Your task to perform on an android device: turn on data saver in the chrome app Image 0: 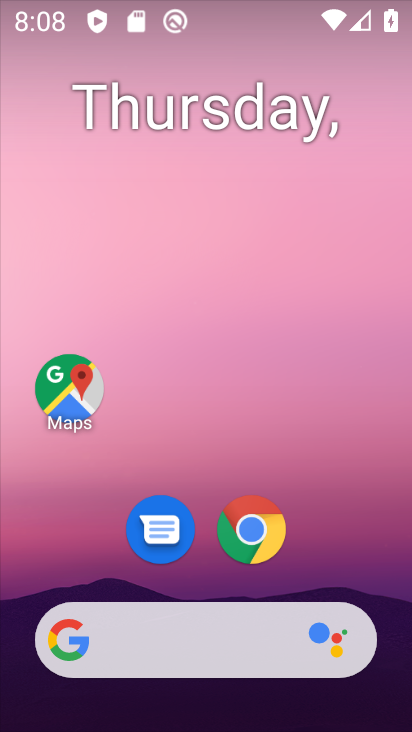
Step 0: press home button
Your task to perform on an android device: turn on data saver in the chrome app Image 1: 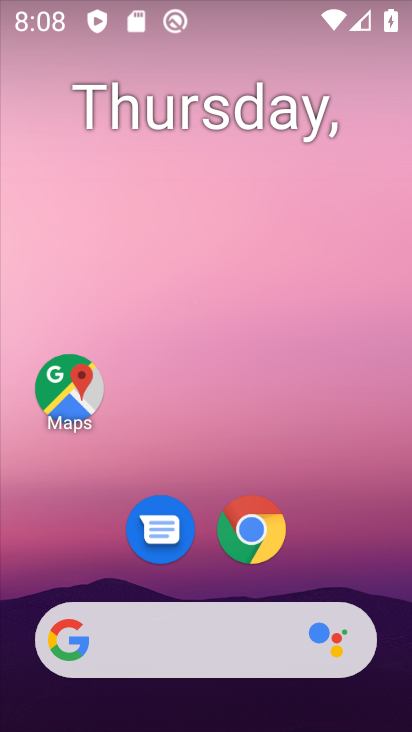
Step 1: click (264, 538)
Your task to perform on an android device: turn on data saver in the chrome app Image 2: 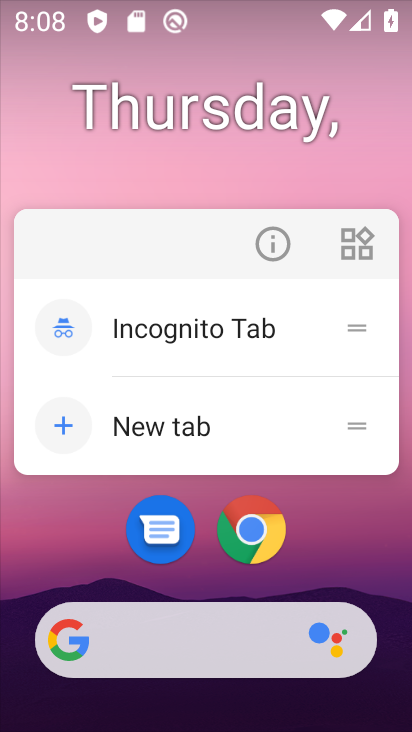
Step 2: click (251, 533)
Your task to perform on an android device: turn on data saver in the chrome app Image 3: 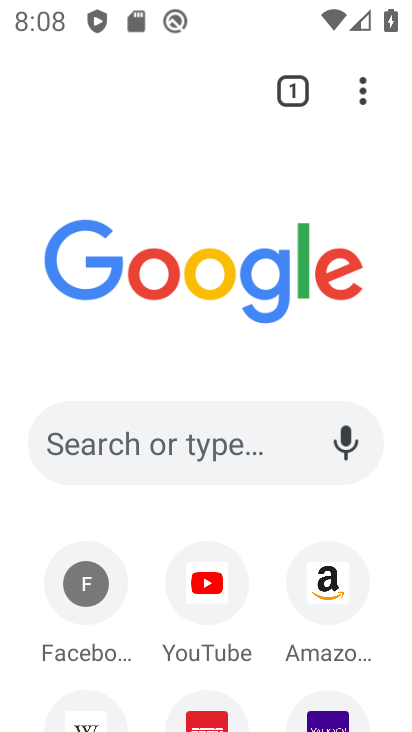
Step 3: drag from (367, 86) to (221, 556)
Your task to perform on an android device: turn on data saver in the chrome app Image 4: 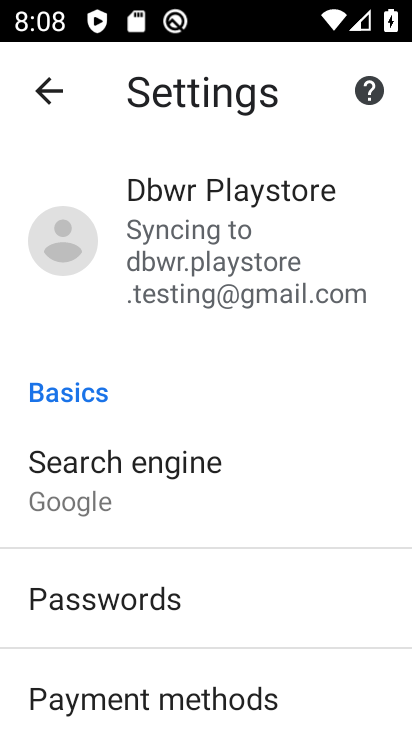
Step 4: drag from (221, 658) to (402, 234)
Your task to perform on an android device: turn on data saver in the chrome app Image 5: 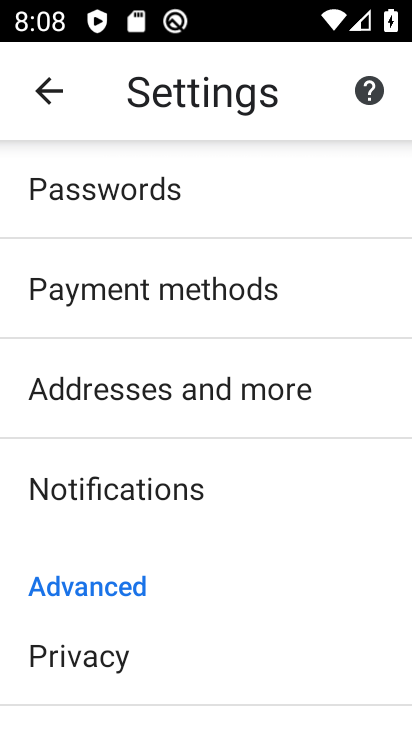
Step 5: drag from (257, 455) to (371, 178)
Your task to perform on an android device: turn on data saver in the chrome app Image 6: 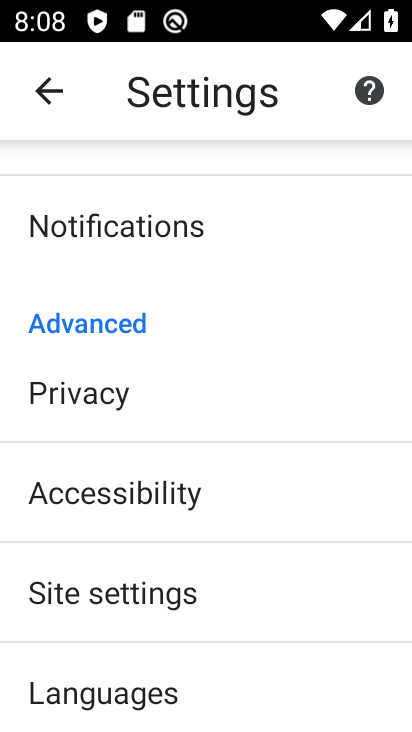
Step 6: drag from (243, 659) to (384, 205)
Your task to perform on an android device: turn on data saver in the chrome app Image 7: 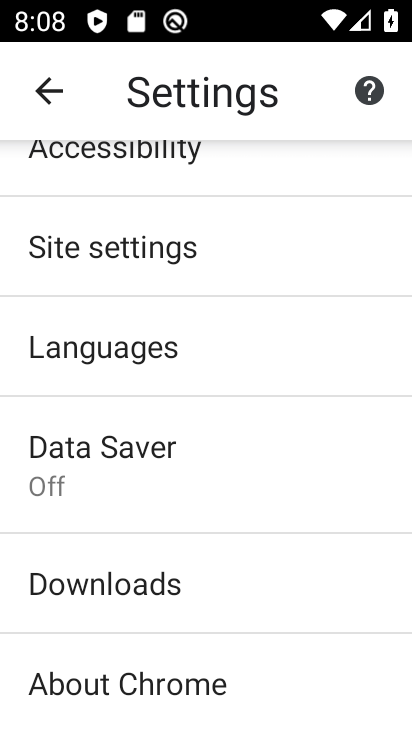
Step 7: click (117, 458)
Your task to perform on an android device: turn on data saver in the chrome app Image 8: 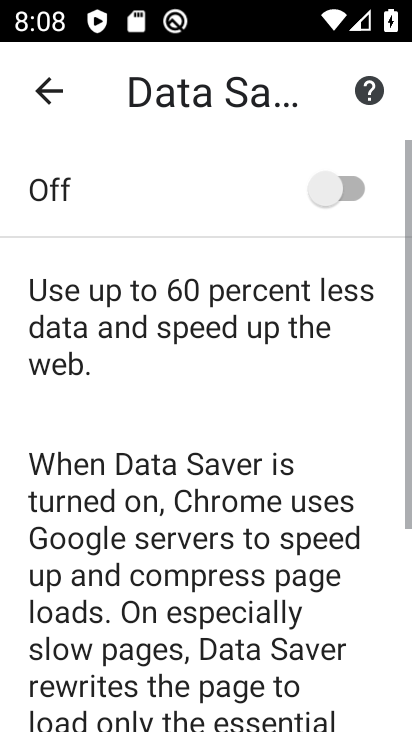
Step 8: click (351, 187)
Your task to perform on an android device: turn on data saver in the chrome app Image 9: 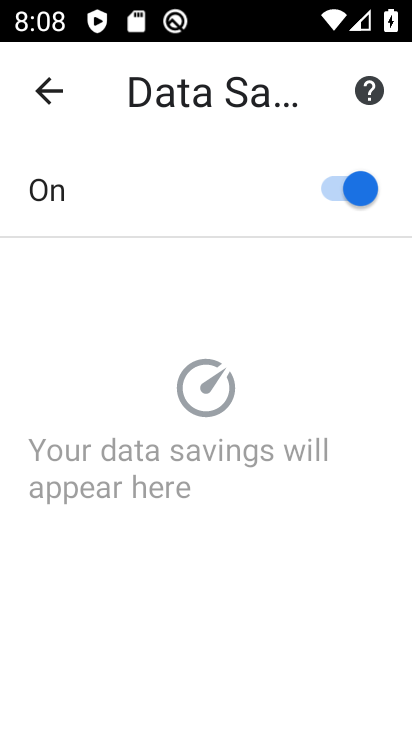
Step 9: task complete